Your task to perform on an android device: Search for razer naga on newegg.com, select the first entry, add it to the cart, then select checkout. Image 0: 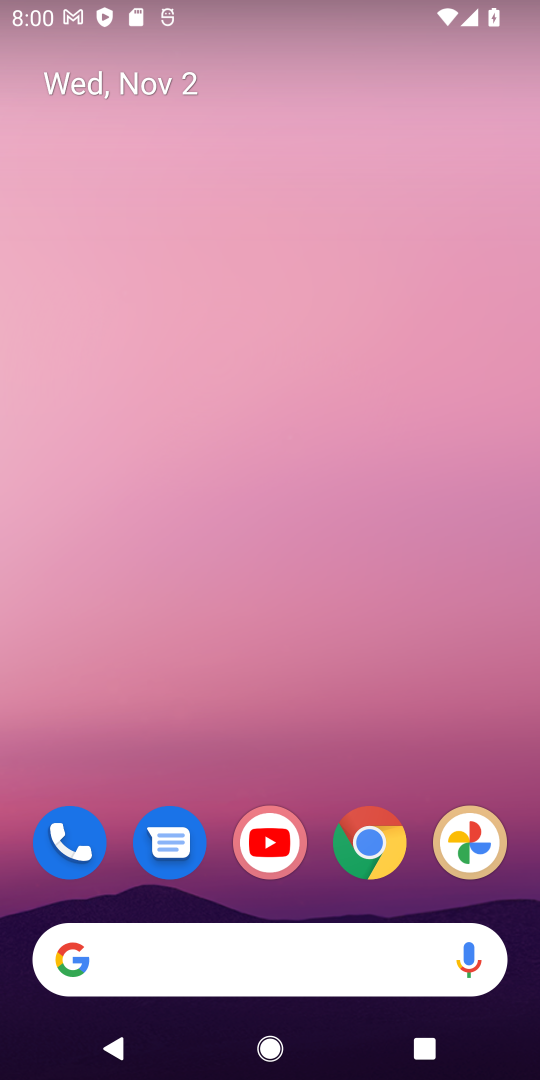
Step 0: drag from (204, 968) to (237, 640)
Your task to perform on an android device: Search for razer naga on newegg.com, select the first entry, add it to the cart, then select checkout. Image 1: 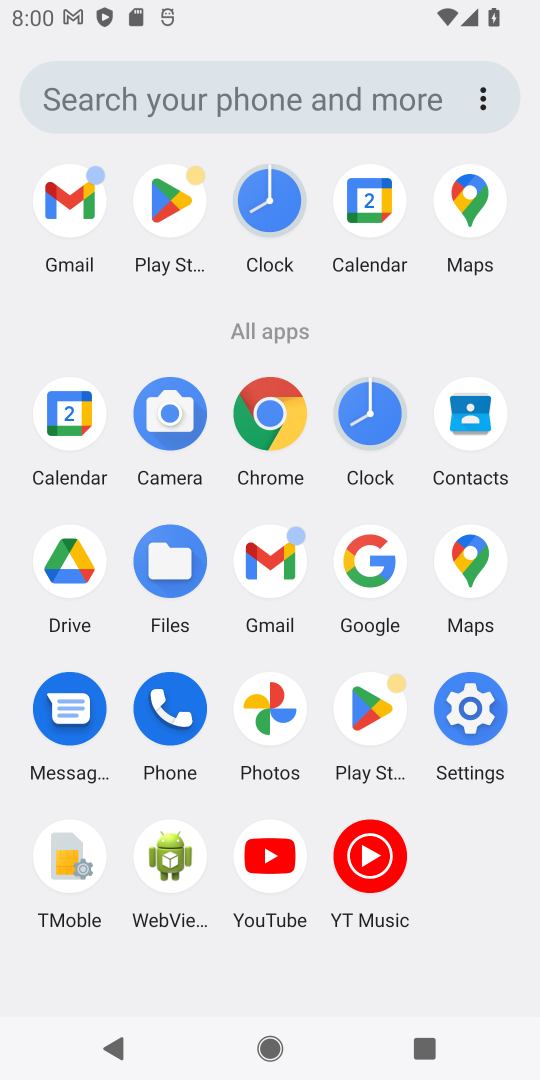
Step 1: click (371, 570)
Your task to perform on an android device: Search for razer naga on newegg.com, select the first entry, add it to the cart, then select checkout. Image 2: 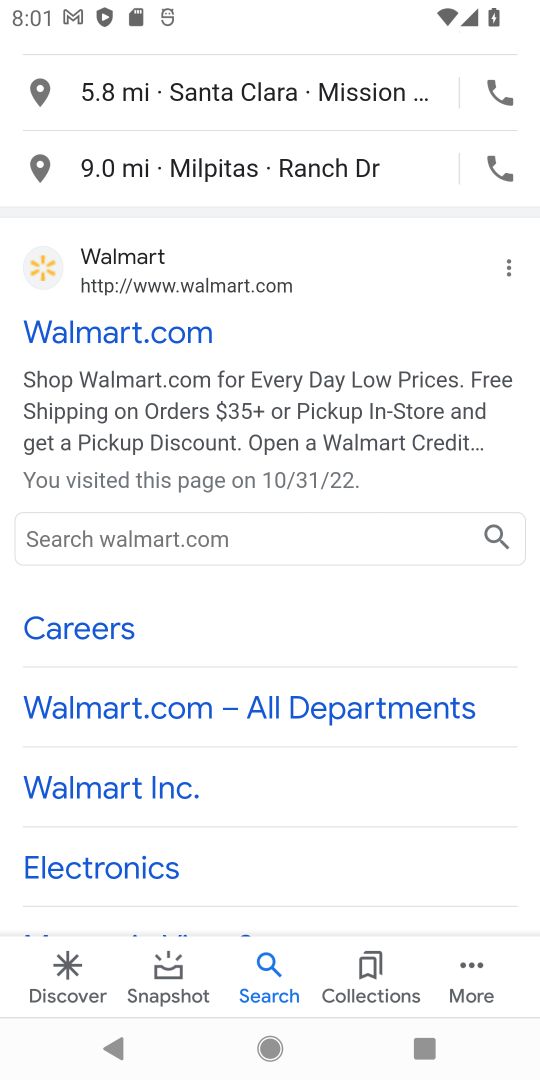
Step 2: drag from (373, 180) to (333, 813)
Your task to perform on an android device: Search for razer naga on newegg.com, select the first entry, add it to the cart, then select checkout. Image 3: 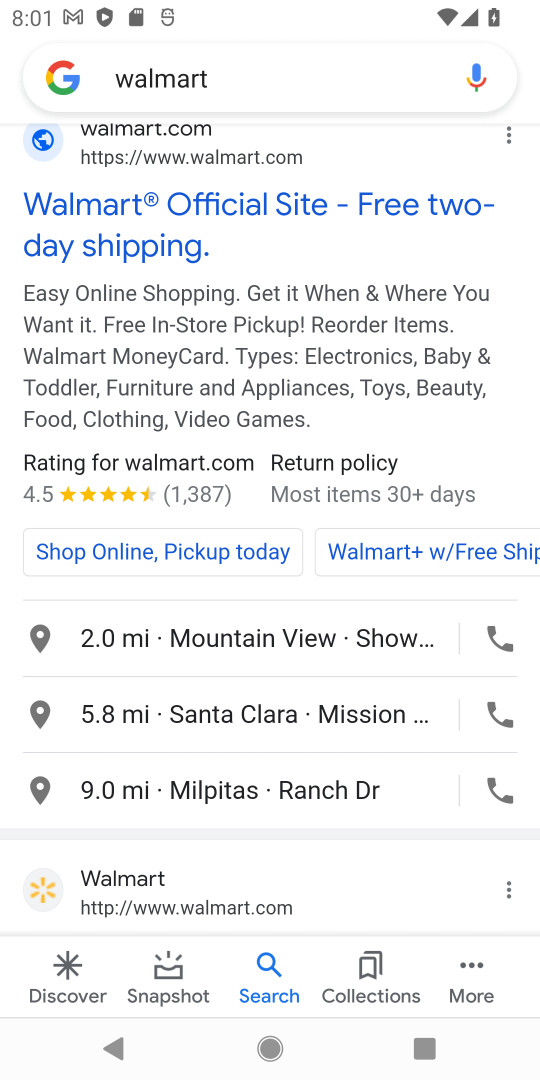
Step 3: click (257, 68)
Your task to perform on an android device: Search for razer naga on newegg.com, select the first entry, add it to the cart, then select checkout. Image 4: 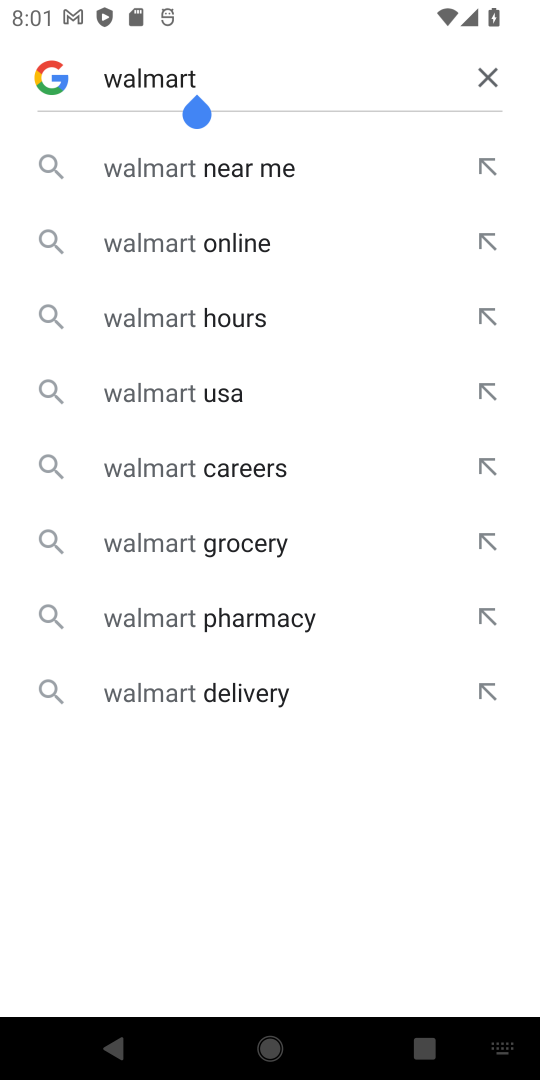
Step 4: click (495, 78)
Your task to perform on an android device: Search for razer naga on newegg.com, select the first entry, add it to the cart, then select checkout. Image 5: 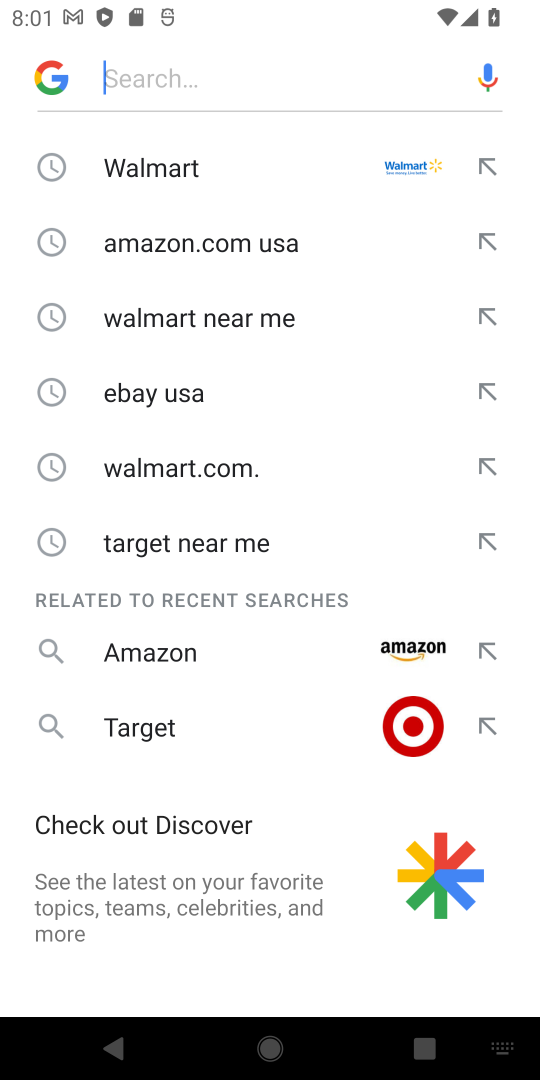
Step 5: click (228, 62)
Your task to perform on an android device: Search for razer naga on newegg.com, select the first entry, add it to the cart, then select checkout. Image 6: 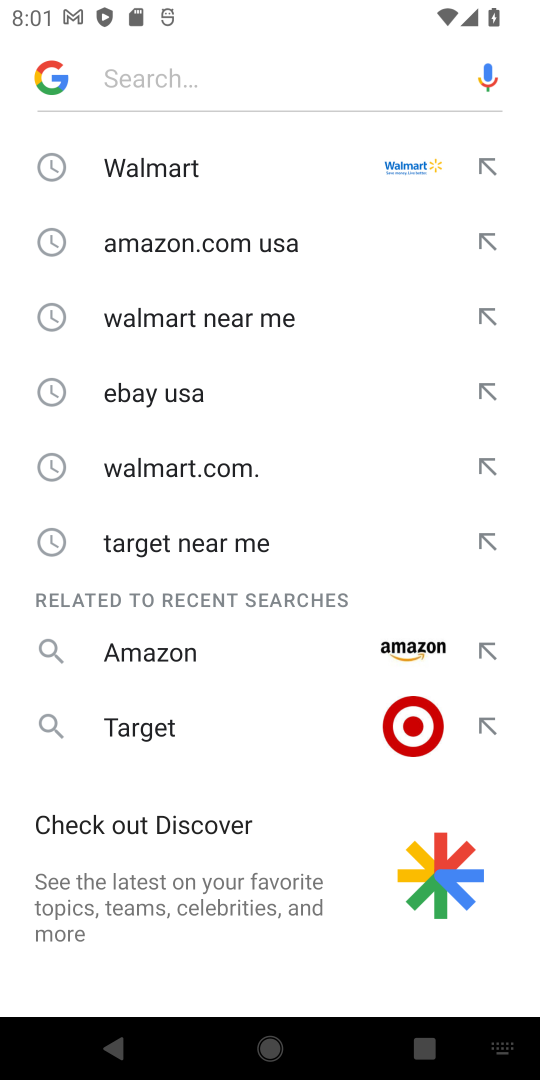
Step 6: type "newegg "
Your task to perform on an android device: Search for razer naga on newegg.com, select the first entry, add it to the cart, then select checkout. Image 7: 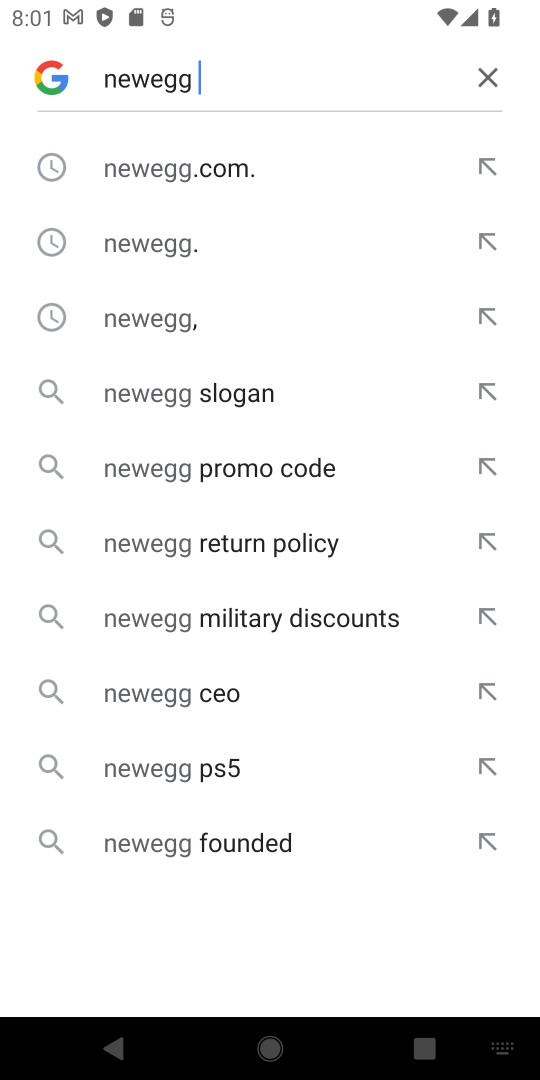
Step 7: click (168, 164)
Your task to perform on an android device: Search for razer naga on newegg.com, select the first entry, add it to the cart, then select checkout. Image 8: 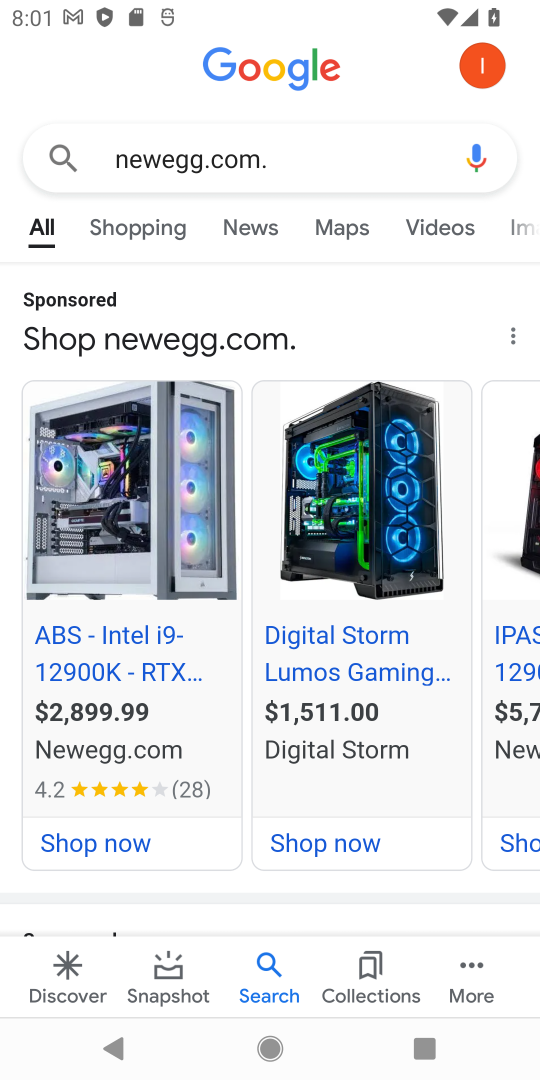
Step 8: drag from (296, 955) to (274, 383)
Your task to perform on an android device: Search for razer naga on newegg.com, select the first entry, add it to the cart, then select checkout. Image 9: 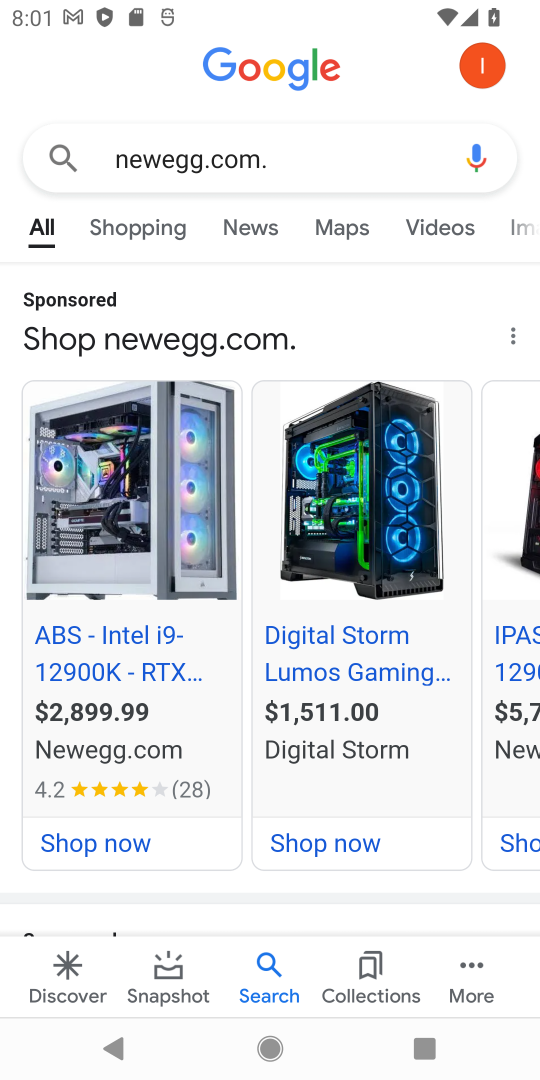
Step 9: drag from (147, 842) to (213, 184)
Your task to perform on an android device: Search for razer naga on newegg.com, select the first entry, add it to the cart, then select checkout. Image 10: 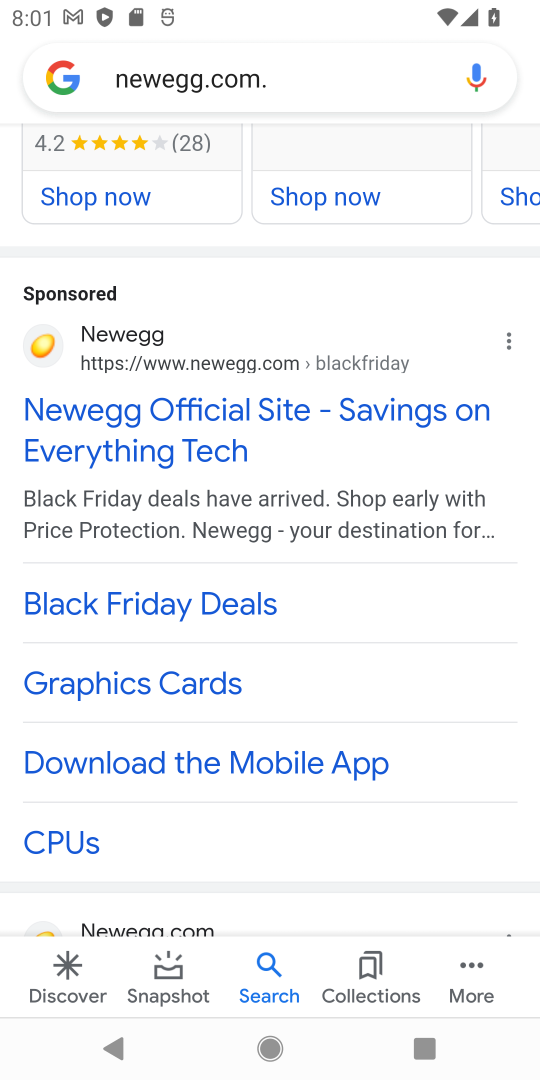
Step 10: click (48, 345)
Your task to perform on an android device: Search for razer naga on newegg.com, select the first entry, add it to the cart, then select checkout. Image 11: 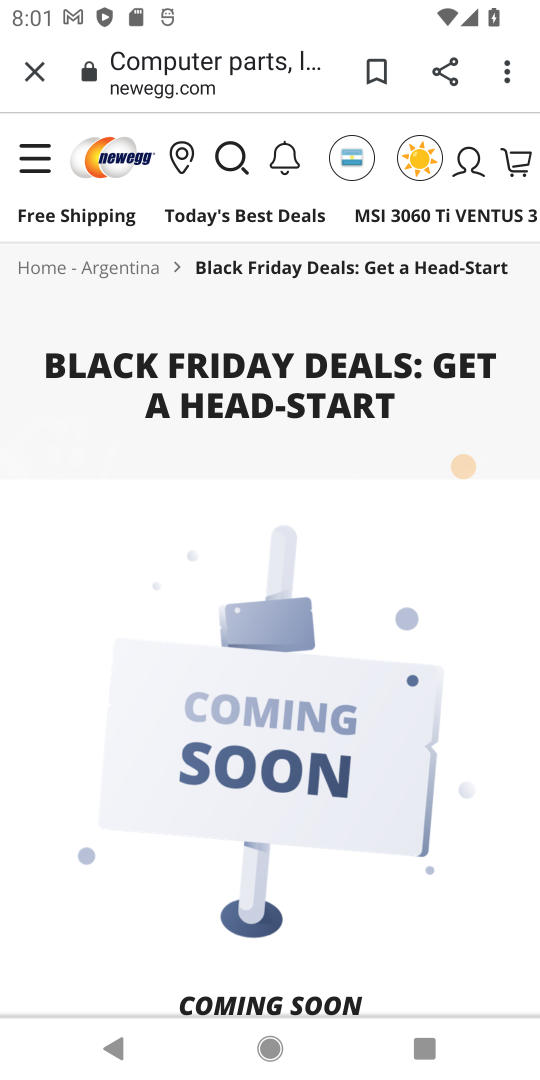
Step 11: click (237, 153)
Your task to perform on an android device: Search for razer naga on newegg.com, select the first entry, add it to the cart, then select checkout. Image 12: 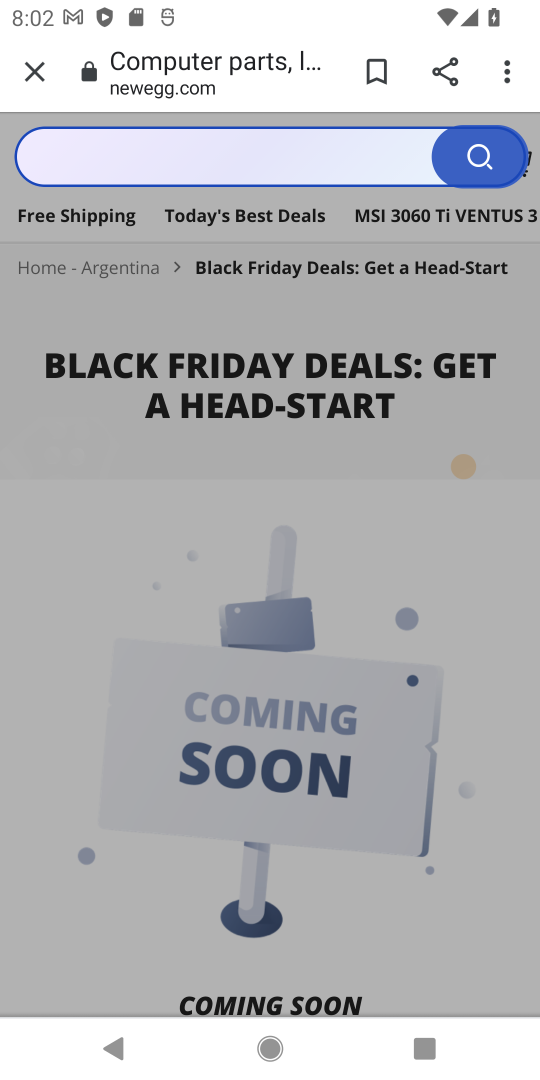
Step 12: click (270, 162)
Your task to perform on an android device: Search for razer naga on newegg.com, select the first entry, add it to the cart, then select checkout. Image 13: 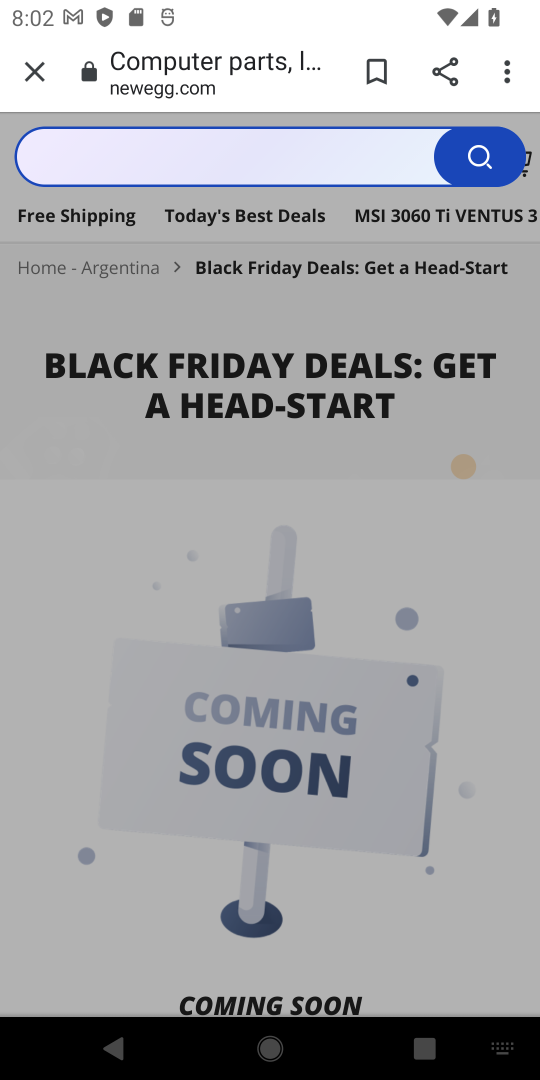
Step 13: type " razer naga  "
Your task to perform on an android device: Search for razer naga on newegg.com, select the first entry, add it to the cart, then select checkout. Image 14: 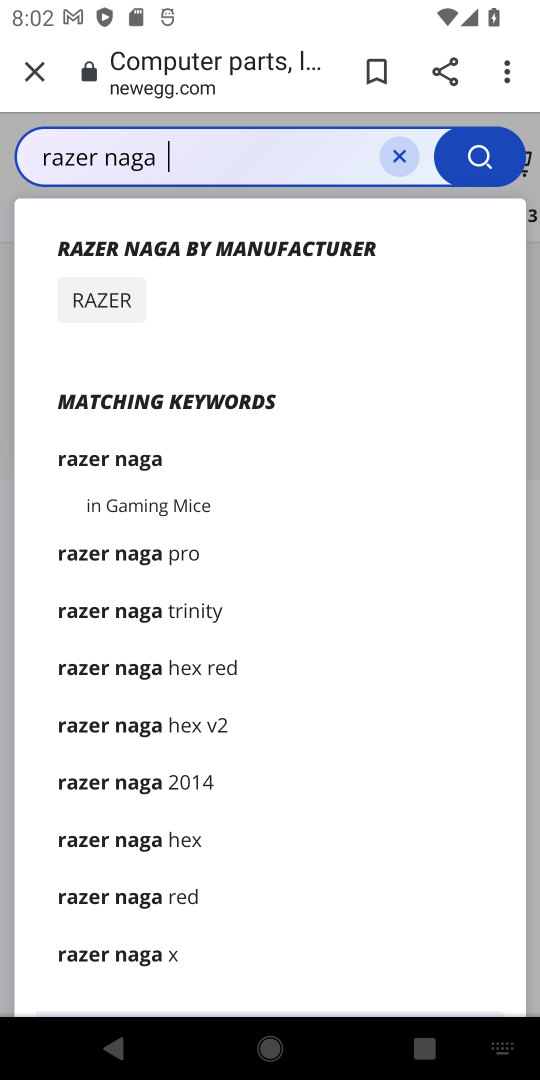
Step 14: click (93, 461)
Your task to perform on an android device: Search for razer naga on newegg.com, select the first entry, add it to the cart, then select checkout. Image 15: 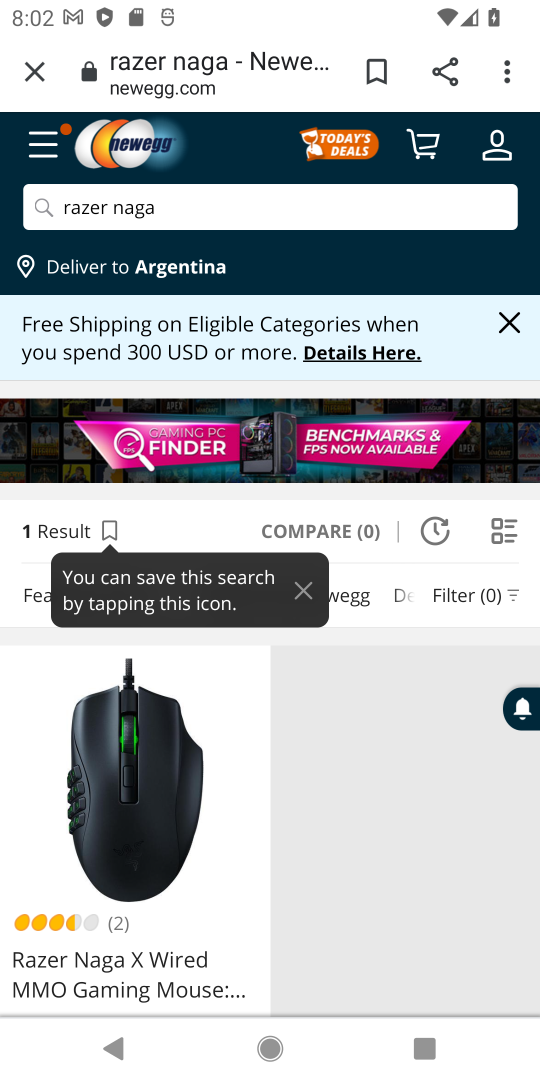
Step 15: drag from (182, 975) to (213, 580)
Your task to perform on an android device: Search for razer naga on newegg.com, select the first entry, add it to the cart, then select checkout. Image 16: 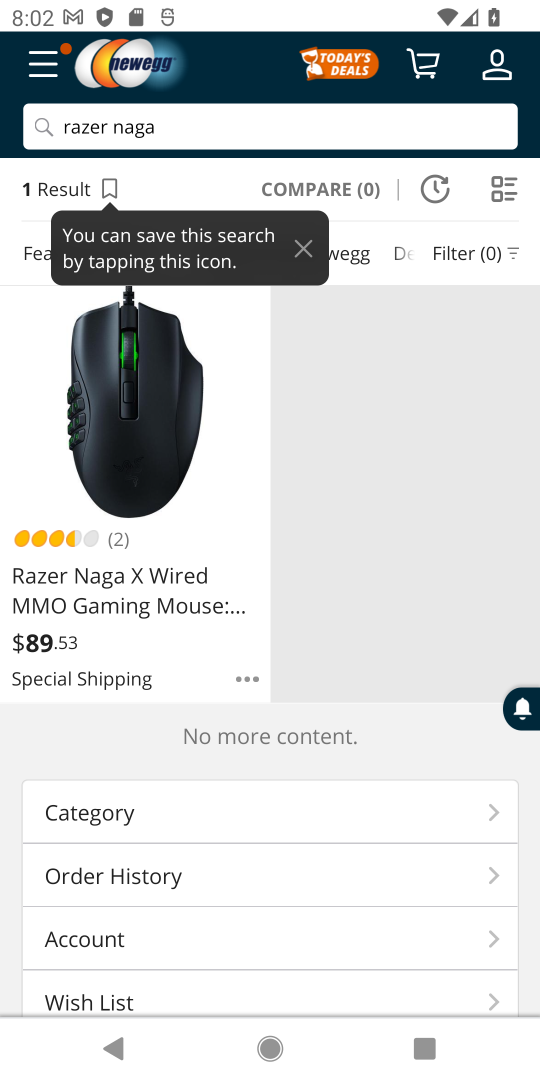
Step 16: click (130, 421)
Your task to perform on an android device: Search for razer naga on newegg.com, select the first entry, add it to the cart, then select checkout. Image 17: 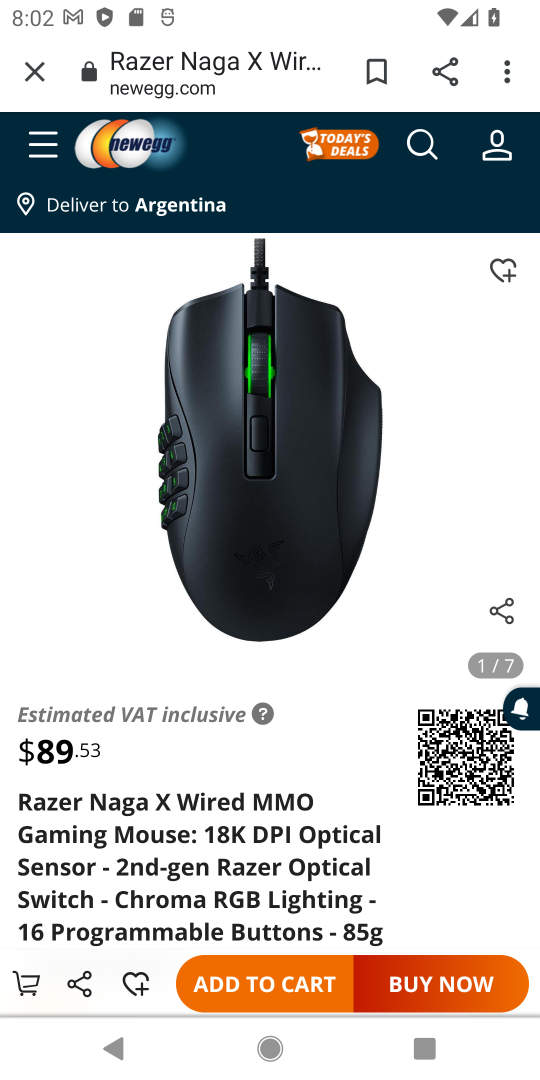
Step 17: click (256, 966)
Your task to perform on an android device: Search for razer naga on newegg.com, select the first entry, add it to the cart, then select checkout. Image 18: 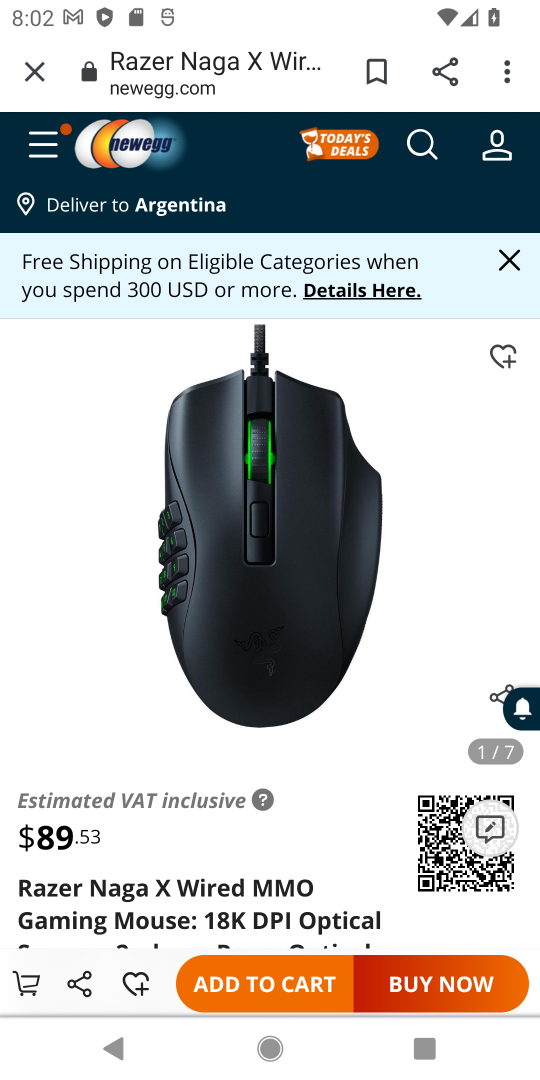
Step 18: click (276, 980)
Your task to perform on an android device: Search for razer naga on newegg.com, select the first entry, add it to the cart, then select checkout. Image 19: 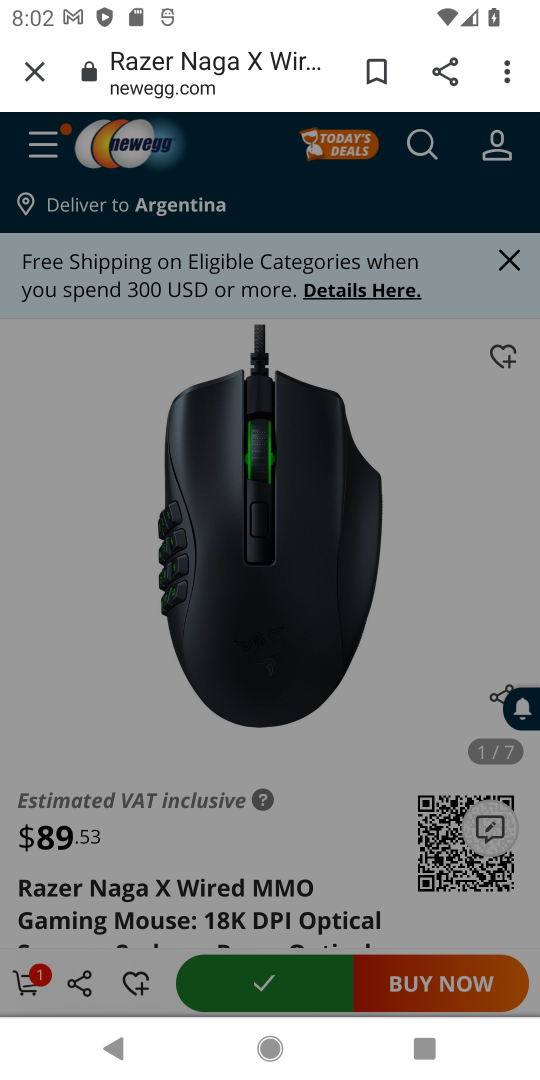
Step 19: task complete